Your task to perform on an android device: Open Android settings Image 0: 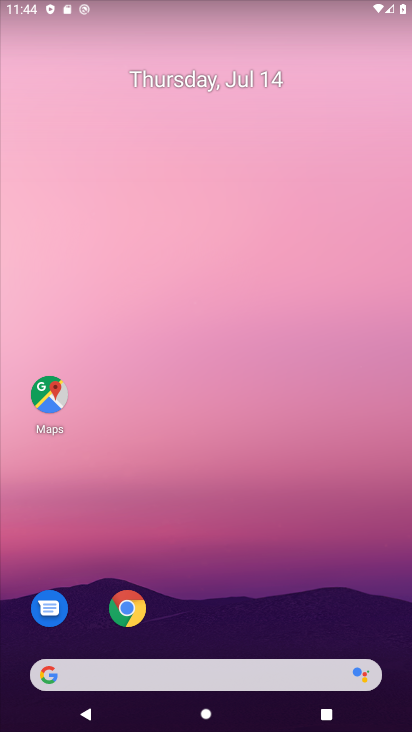
Step 0: drag from (287, 657) to (378, 176)
Your task to perform on an android device: Open Android settings Image 1: 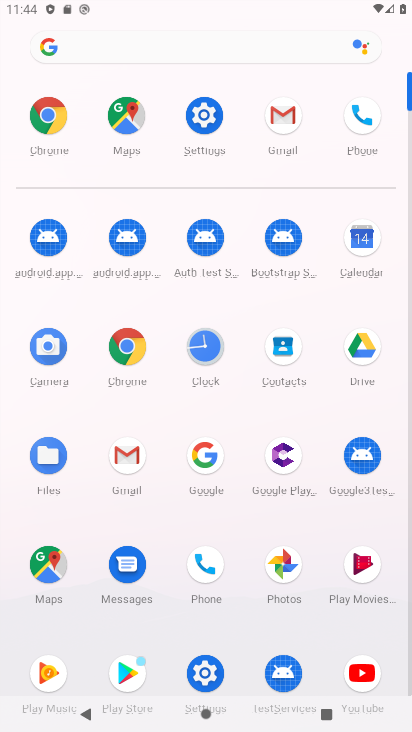
Step 1: click (190, 114)
Your task to perform on an android device: Open Android settings Image 2: 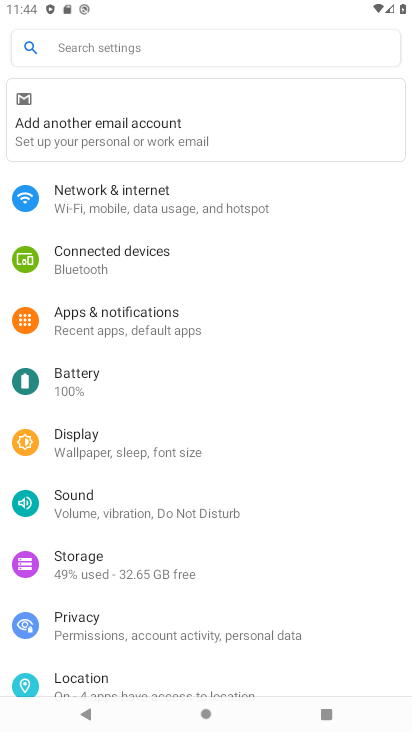
Step 2: drag from (163, 610) to (266, 41)
Your task to perform on an android device: Open Android settings Image 3: 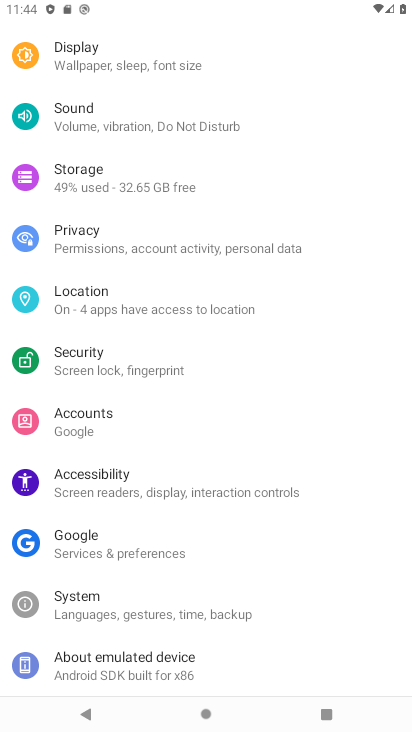
Step 3: click (199, 666)
Your task to perform on an android device: Open Android settings Image 4: 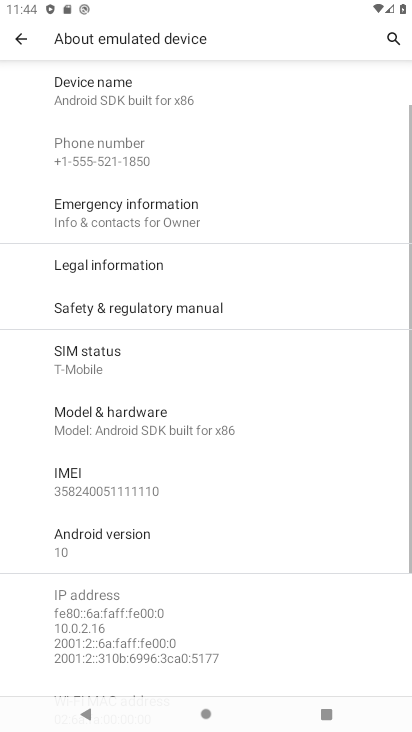
Step 4: task complete